Your task to perform on an android device: install app "Pandora - Music & Podcasts" Image 0: 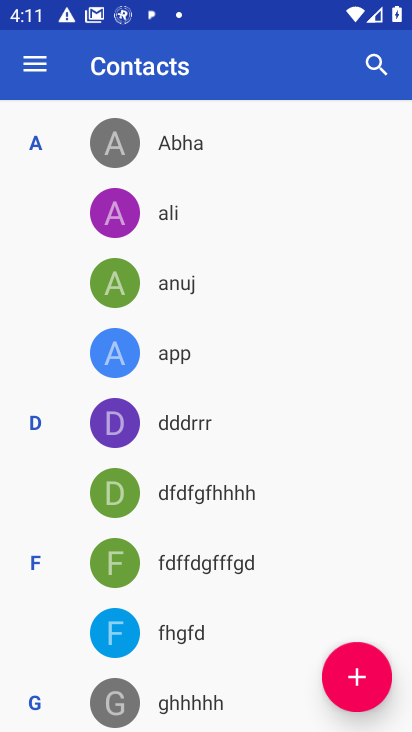
Step 0: press home button
Your task to perform on an android device: install app "Pandora - Music & Podcasts" Image 1: 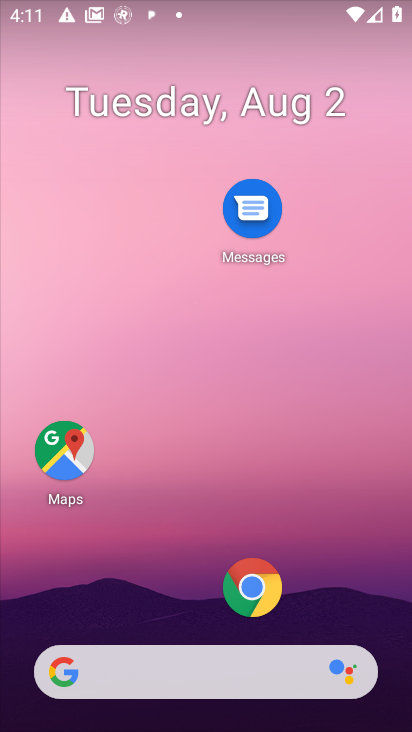
Step 1: drag from (182, 591) to (181, 124)
Your task to perform on an android device: install app "Pandora - Music & Podcasts" Image 2: 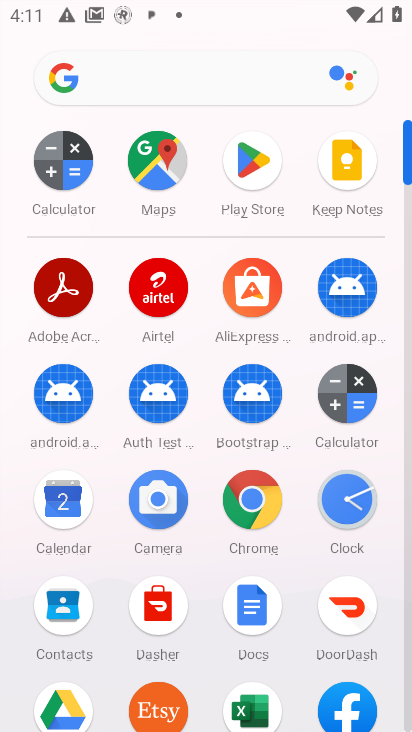
Step 2: click (252, 144)
Your task to perform on an android device: install app "Pandora - Music & Podcasts" Image 3: 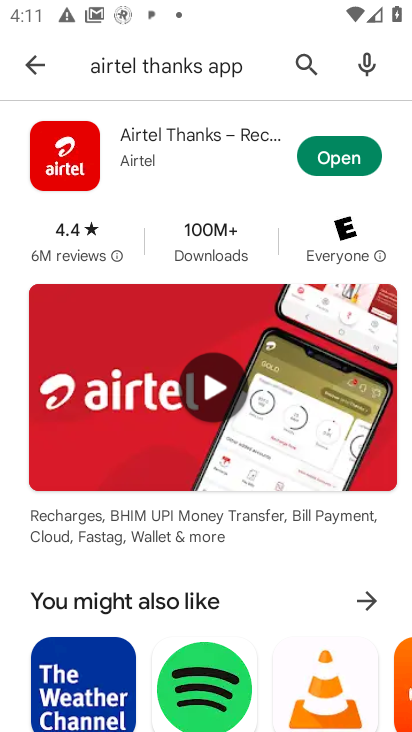
Step 3: click (306, 56)
Your task to perform on an android device: install app "Pandora - Music & Podcasts" Image 4: 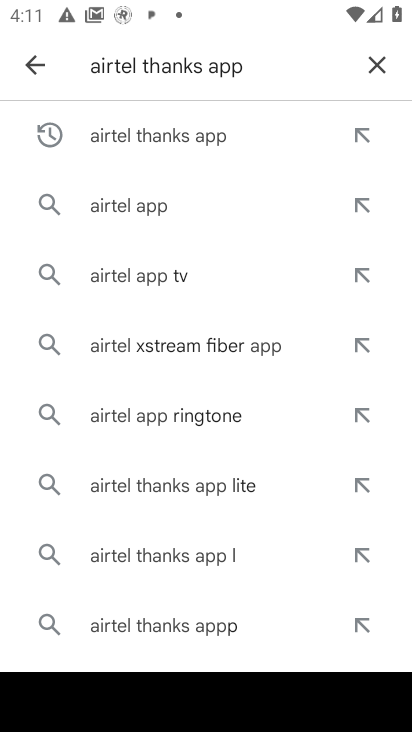
Step 4: click (371, 67)
Your task to perform on an android device: install app "Pandora - Music & Podcasts" Image 5: 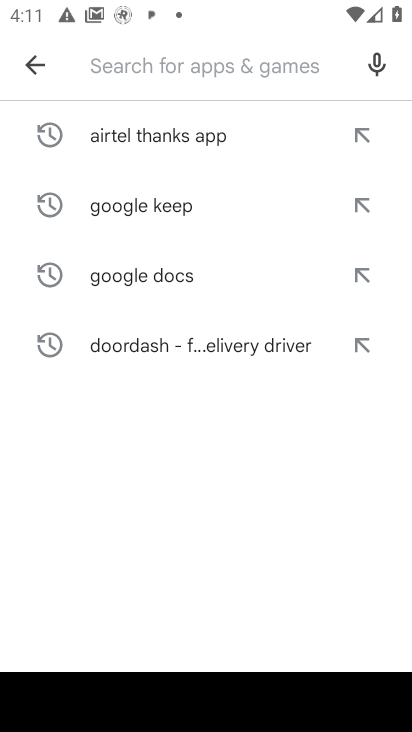
Step 5: type "Pandora - Music & Podcasts"
Your task to perform on an android device: install app "Pandora - Music & Podcasts" Image 6: 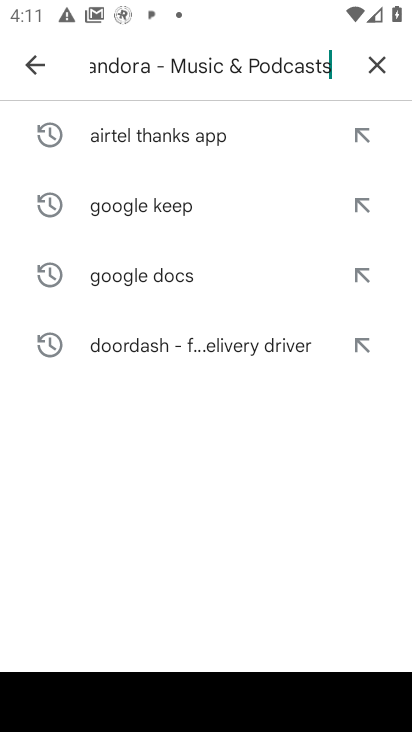
Step 6: type ""
Your task to perform on an android device: install app "Pandora - Music & Podcasts" Image 7: 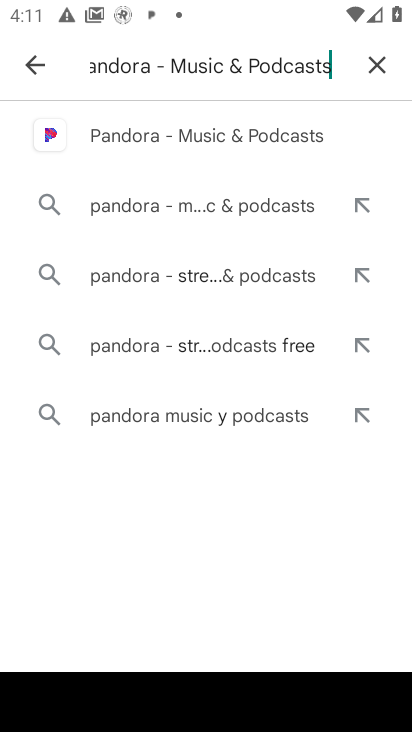
Step 7: click (165, 138)
Your task to perform on an android device: install app "Pandora - Music & Podcasts" Image 8: 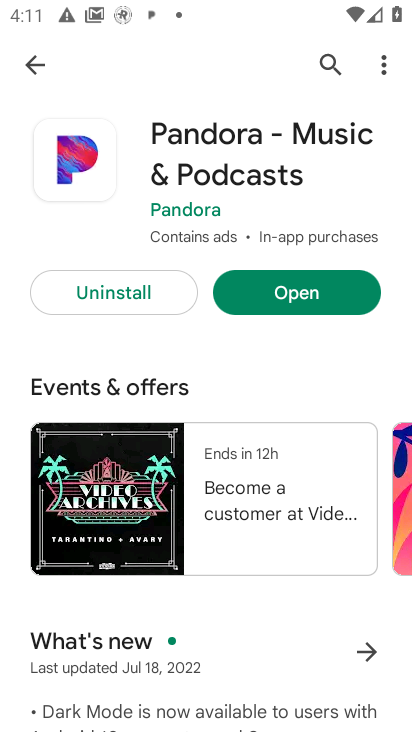
Step 8: task complete